Your task to perform on an android device: Go to location settings Image 0: 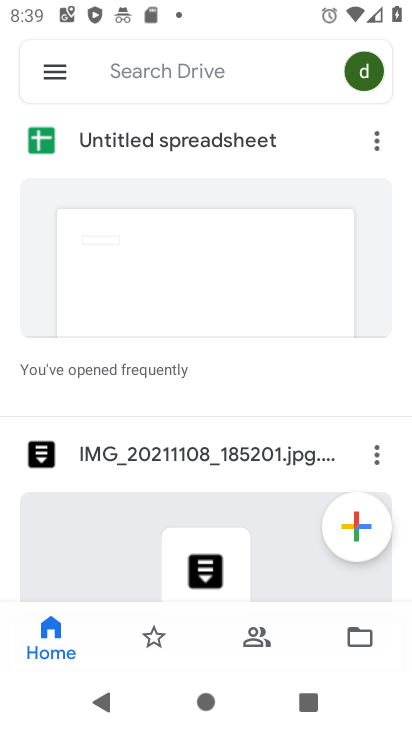
Step 0: press home button
Your task to perform on an android device: Go to location settings Image 1: 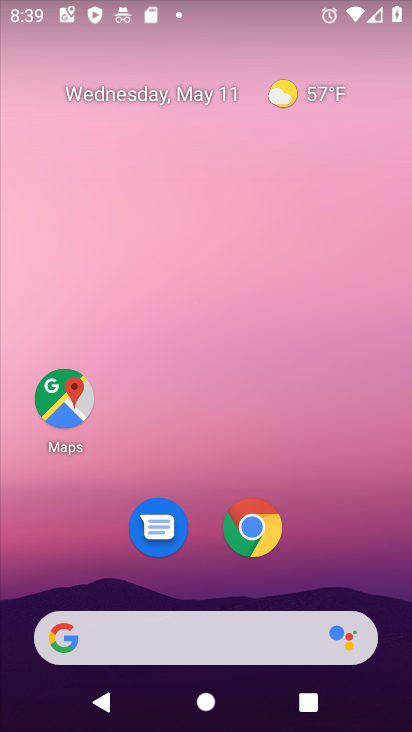
Step 1: drag from (331, 577) to (331, 10)
Your task to perform on an android device: Go to location settings Image 2: 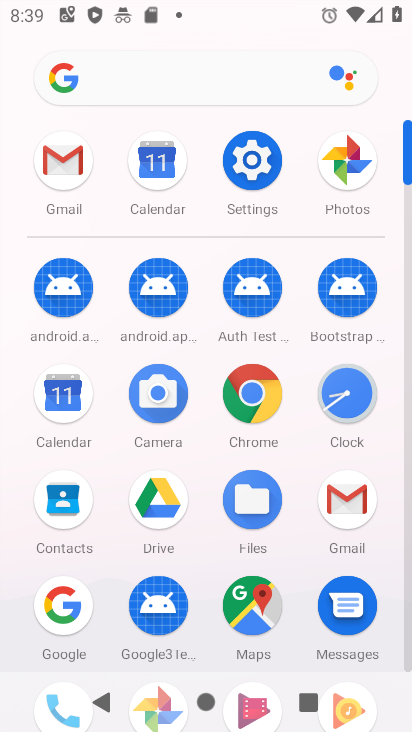
Step 2: click (258, 186)
Your task to perform on an android device: Go to location settings Image 3: 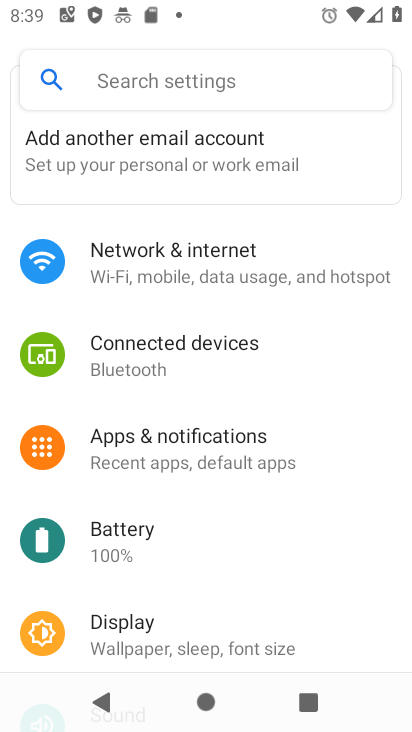
Step 3: drag from (333, 505) to (305, 131)
Your task to perform on an android device: Go to location settings Image 4: 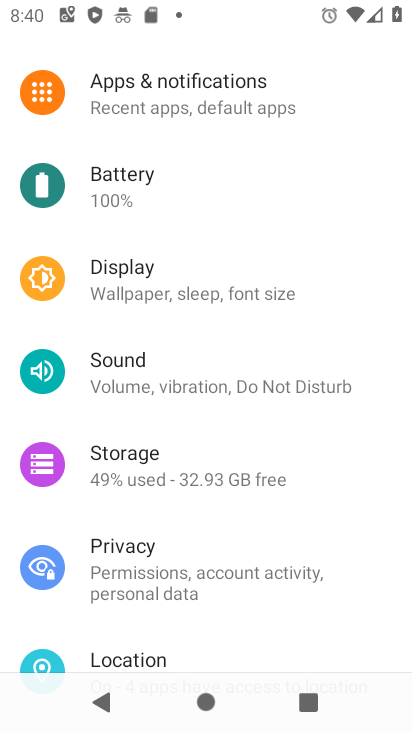
Step 4: drag from (218, 473) to (218, 310)
Your task to perform on an android device: Go to location settings Image 5: 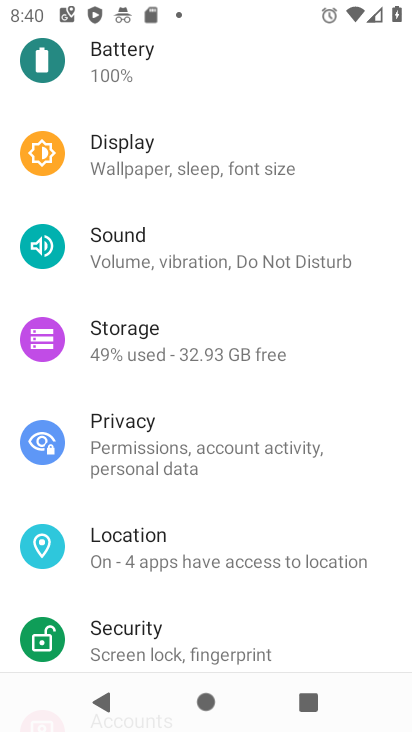
Step 5: click (155, 545)
Your task to perform on an android device: Go to location settings Image 6: 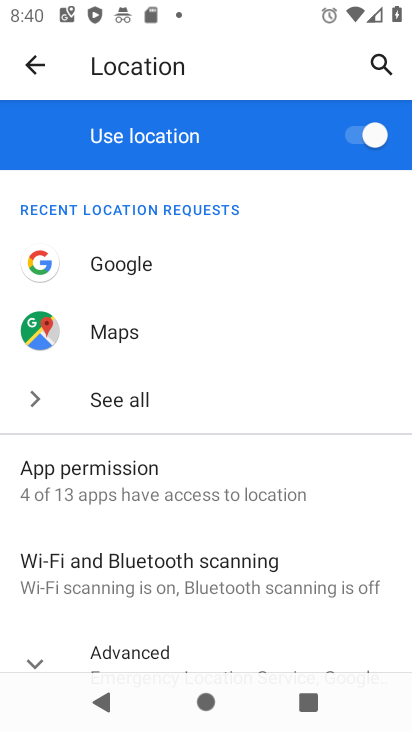
Step 6: task complete